Your task to perform on an android device: show emergency info Image 0: 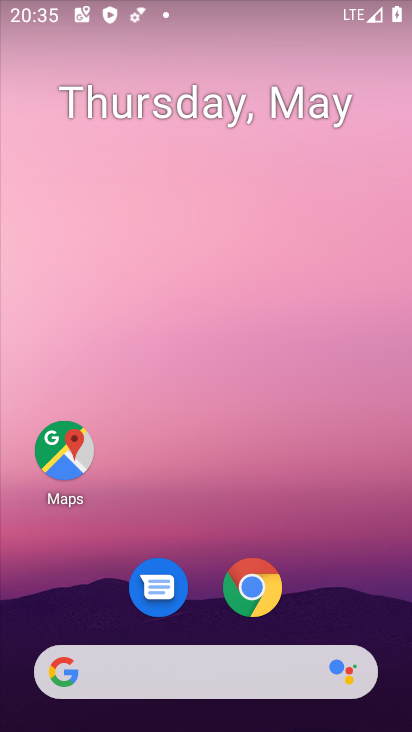
Step 0: drag from (122, 729) to (200, 56)
Your task to perform on an android device: show emergency info Image 1: 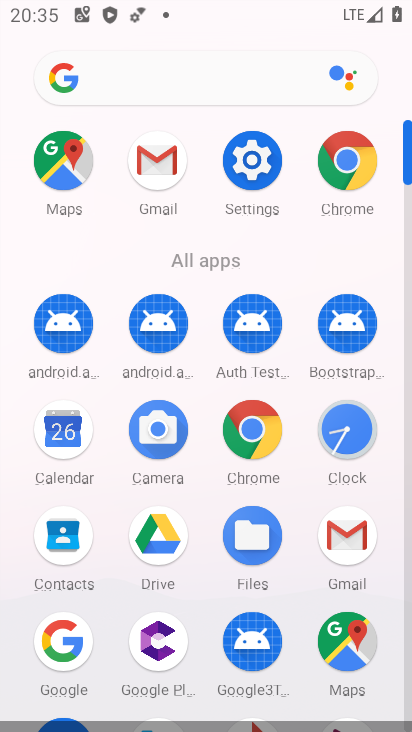
Step 1: click (245, 167)
Your task to perform on an android device: show emergency info Image 2: 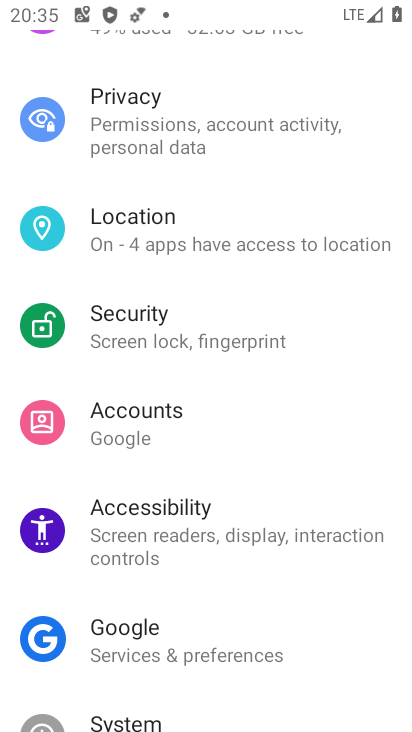
Step 2: drag from (212, 702) to (235, 273)
Your task to perform on an android device: show emergency info Image 3: 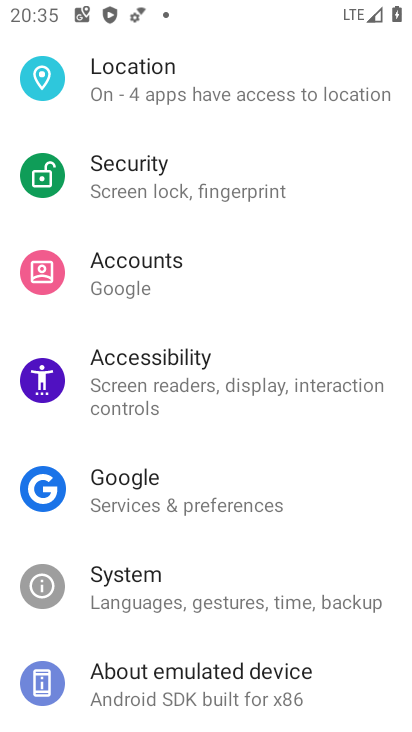
Step 3: click (217, 694)
Your task to perform on an android device: show emergency info Image 4: 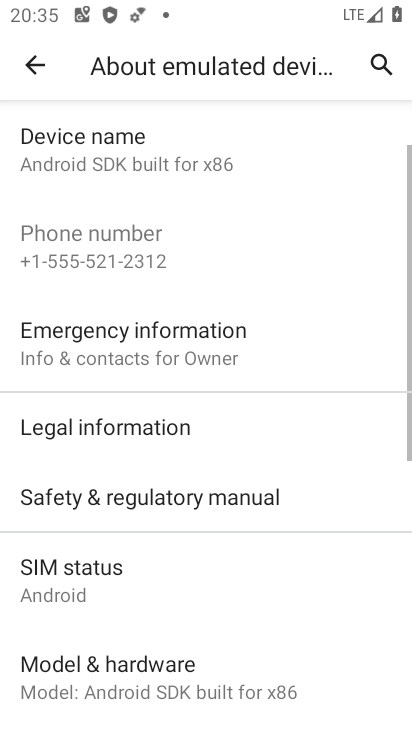
Step 4: click (166, 349)
Your task to perform on an android device: show emergency info Image 5: 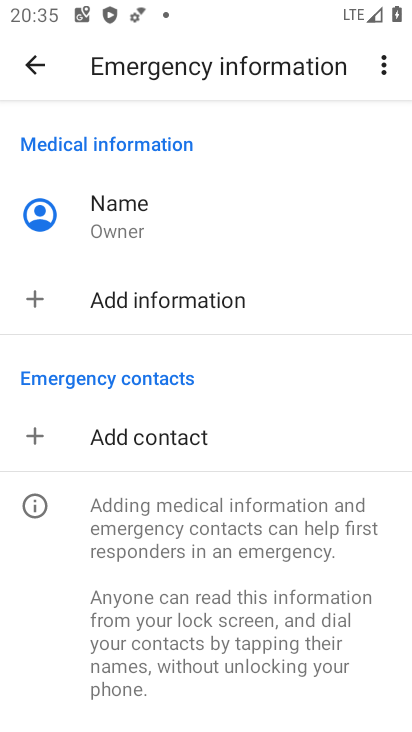
Step 5: task complete